Your task to perform on an android device: Open the calendar and show me this week's events? Image 0: 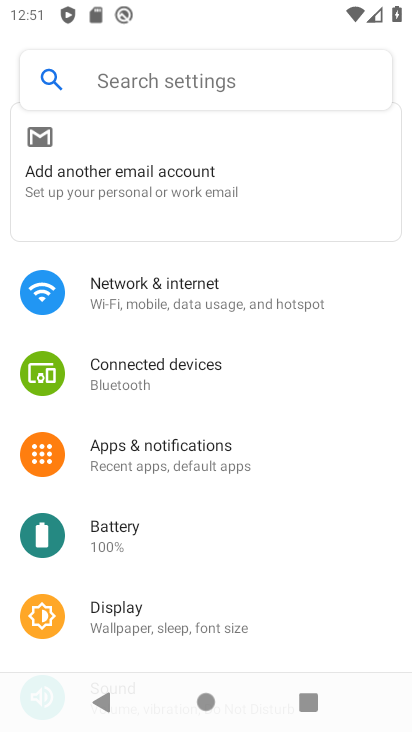
Step 0: press home button
Your task to perform on an android device: Open the calendar and show me this week's events? Image 1: 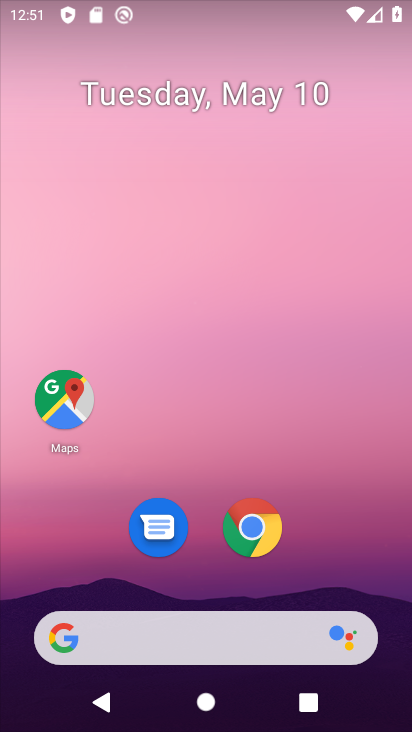
Step 1: drag from (296, 552) to (312, 123)
Your task to perform on an android device: Open the calendar and show me this week's events? Image 2: 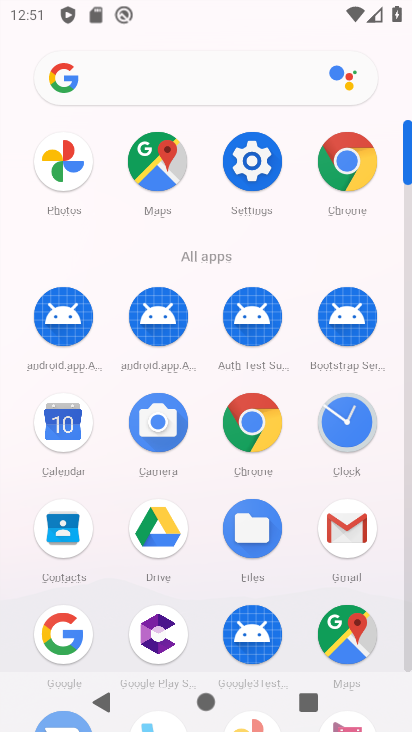
Step 2: click (56, 445)
Your task to perform on an android device: Open the calendar and show me this week's events? Image 3: 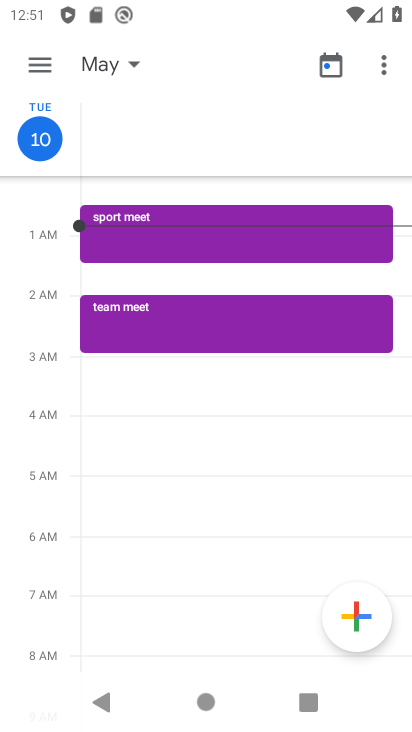
Step 3: click (120, 69)
Your task to perform on an android device: Open the calendar and show me this week's events? Image 4: 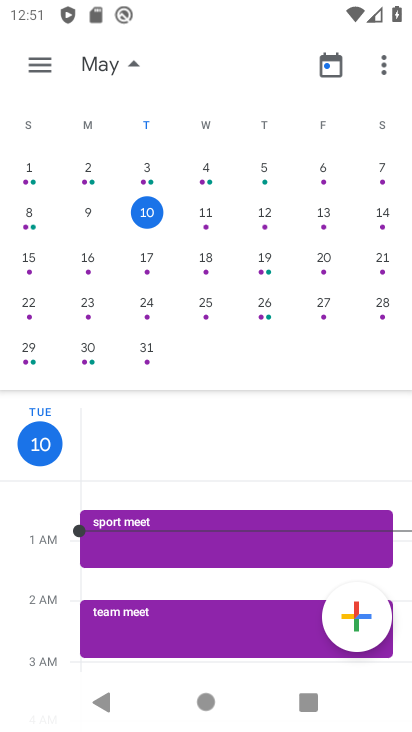
Step 4: click (205, 223)
Your task to perform on an android device: Open the calendar and show me this week's events? Image 5: 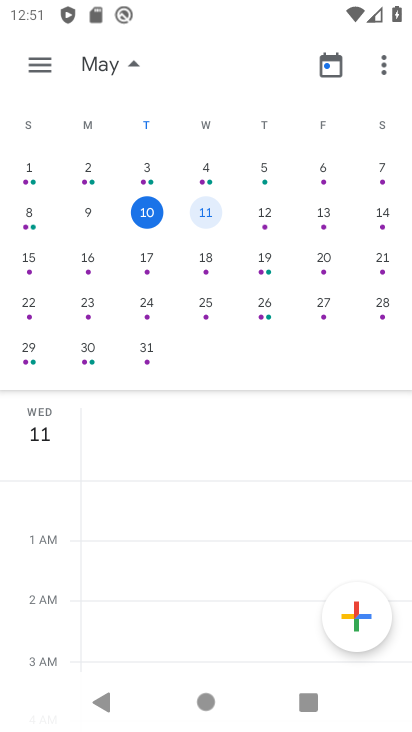
Step 5: click (276, 211)
Your task to perform on an android device: Open the calendar and show me this week's events? Image 6: 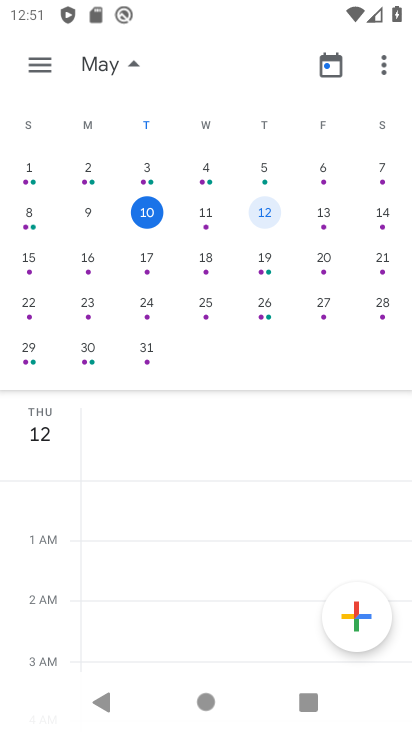
Step 6: click (322, 223)
Your task to perform on an android device: Open the calendar and show me this week's events? Image 7: 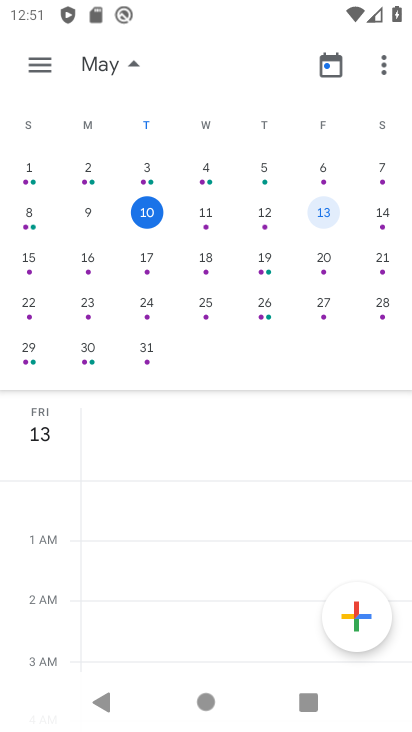
Step 7: click (388, 220)
Your task to perform on an android device: Open the calendar and show me this week's events? Image 8: 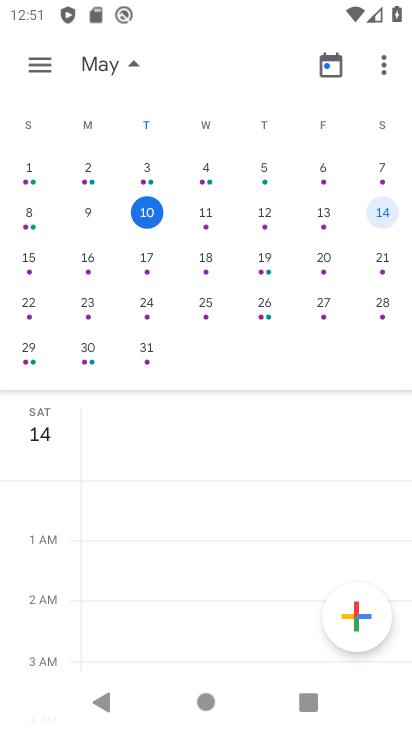
Step 8: task complete